Your task to perform on an android device: Open Google Image 0: 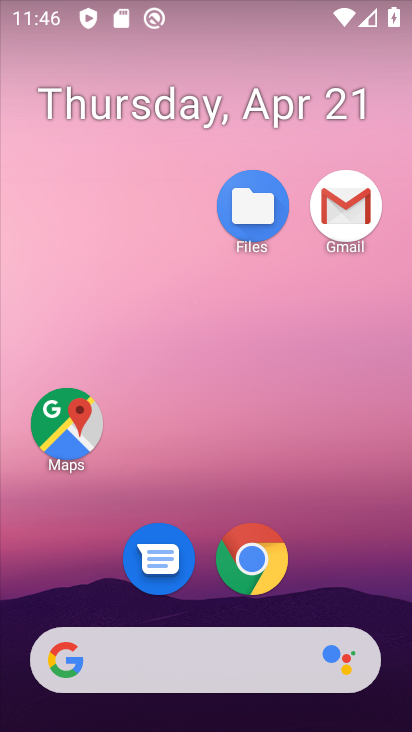
Step 0: click (266, 560)
Your task to perform on an android device: Open Google Image 1: 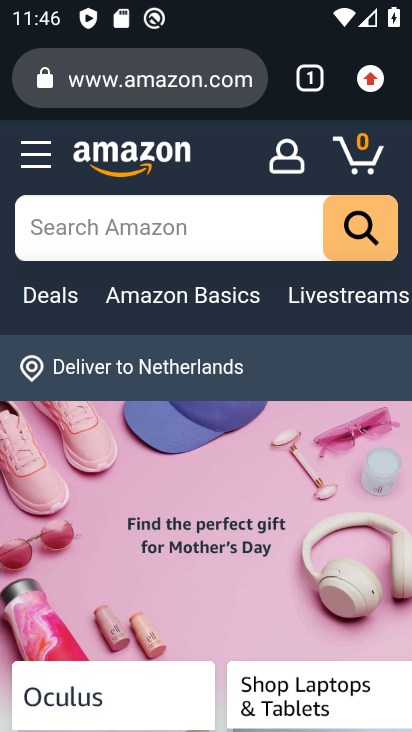
Step 1: click (363, 76)
Your task to perform on an android device: Open Google Image 2: 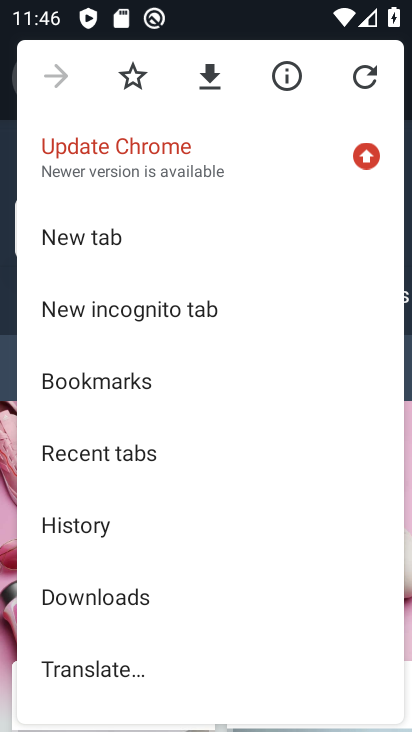
Step 2: click (178, 242)
Your task to perform on an android device: Open Google Image 3: 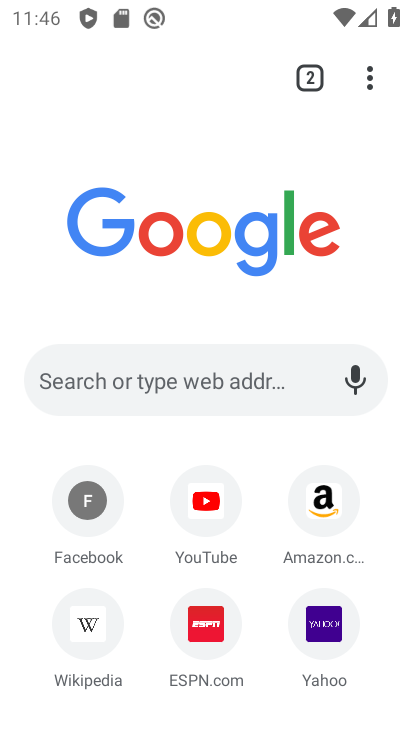
Step 3: click (172, 373)
Your task to perform on an android device: Open Google Image 4: 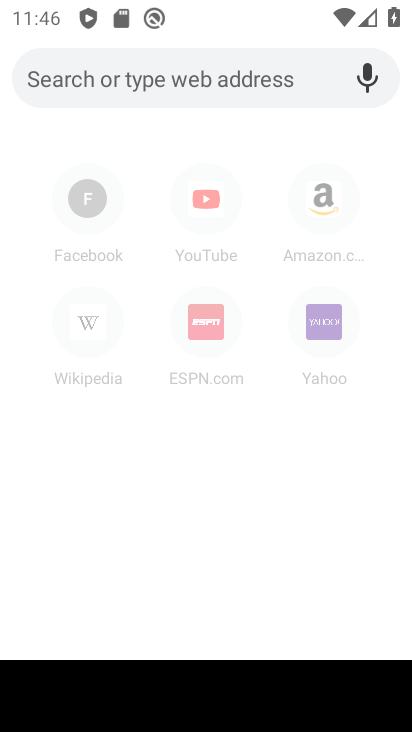
Step 4: type "google.com"
Your task to perform on an android device: Open Google Image 5: 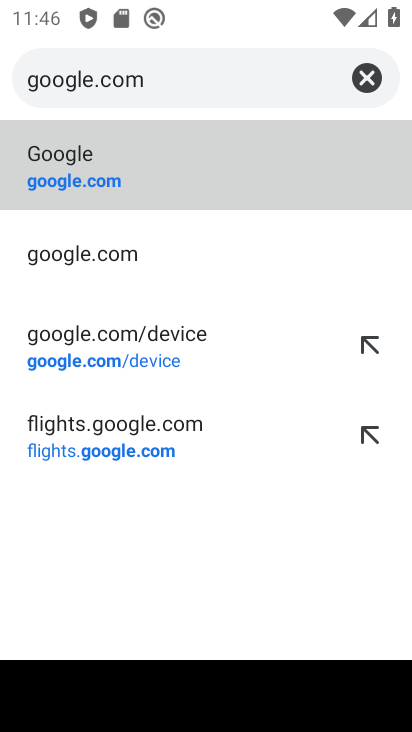
Step 5: click (162, 160)
Your task to perform on an android device: Open Google Image 6: 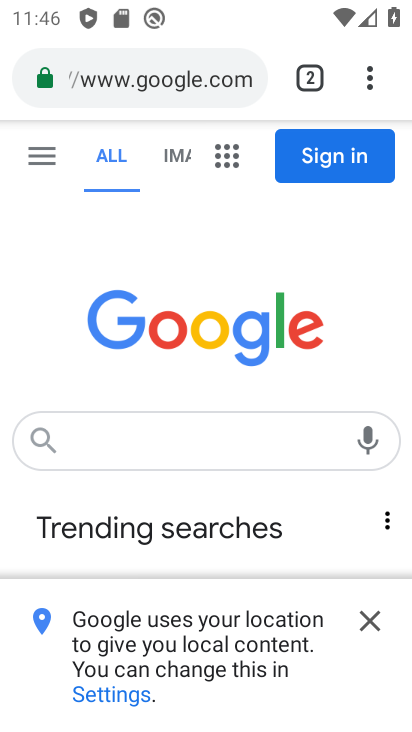
Step 6: task complete